Your task to perform on an android device: turn off priority inbox in the gmail app Image 0: 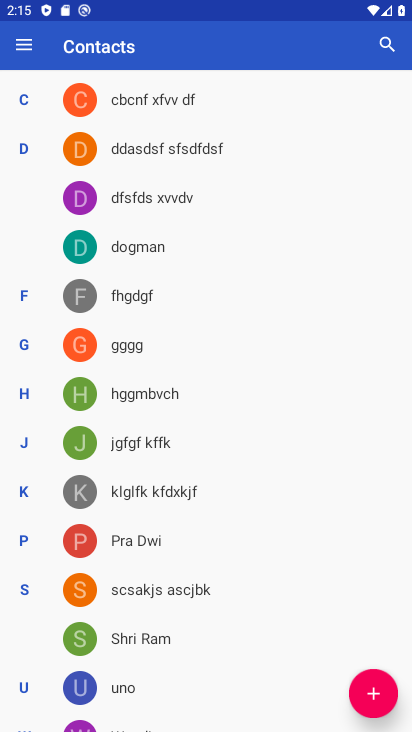
Step 0: press home button
Your task to perform on an android device: turn off priority inbox in the gmail app Image 1: 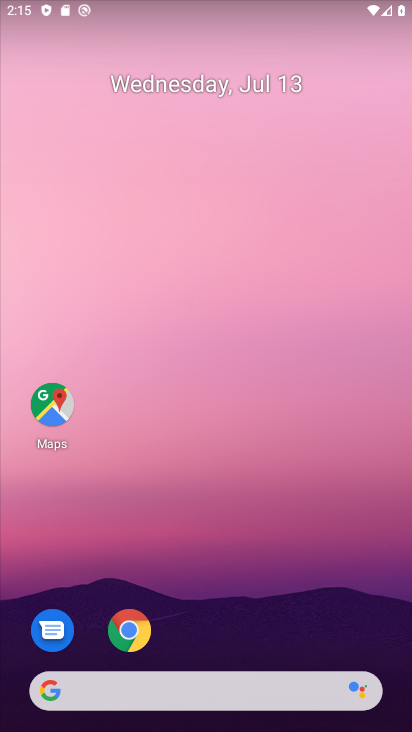
Step 1: drag from (261, 613) to (198, 68)
Your task to perform on an android device: turn off priority inbox in the gmail app Image 2: 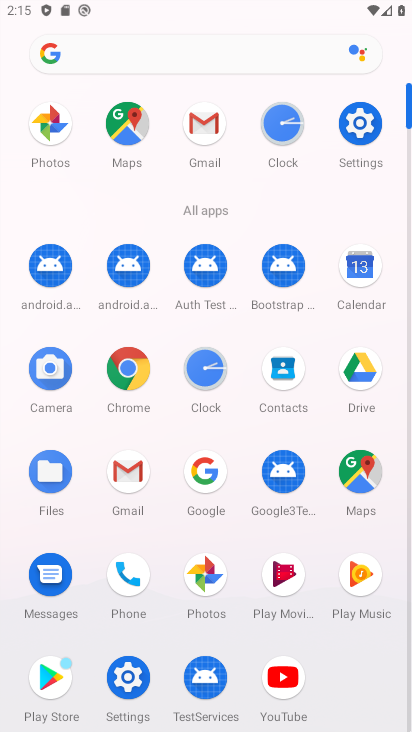
Step 2: click (201, 124)
Your task to perform on an android device: turn off priority inbox in the gmail app Image 3: 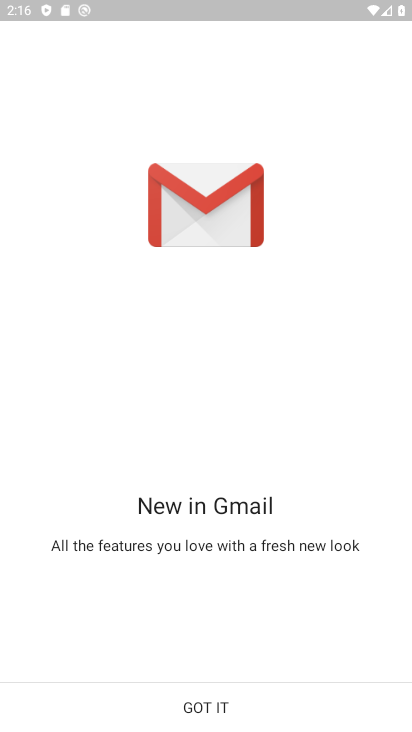
Step 3: click (217, 707)
Your task to perform on an android device: turn off priority inbox in the gmail app Image 4: 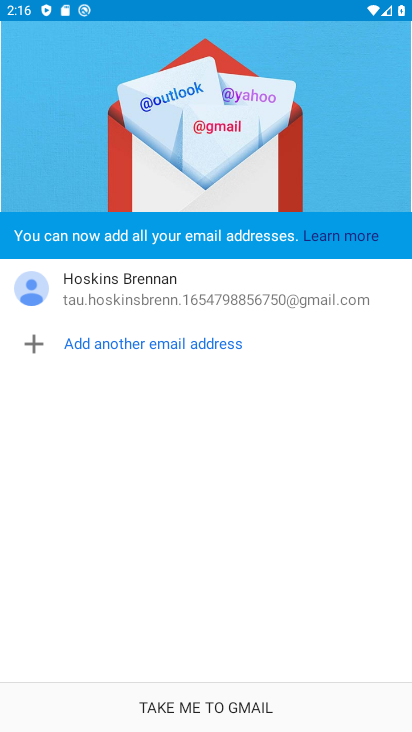
Step 4: click (229, 712)
Your task to perform on an android device: turn off priority inbox in the gmail app Image 5: 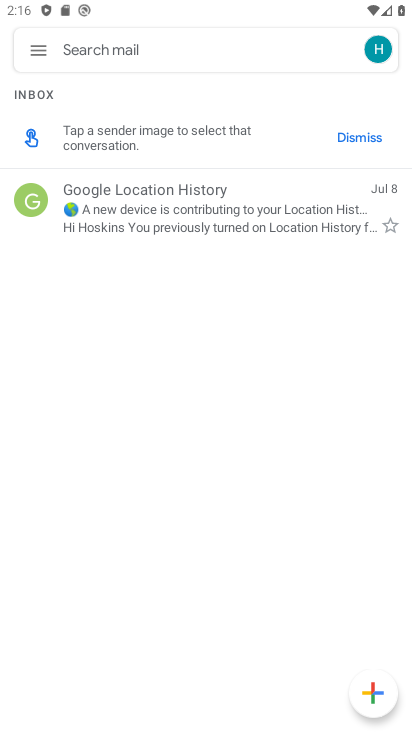
Step 5: click (40, 50)
Your task to perform on an android device: turn off priority inbox in the gmail app Image 6: 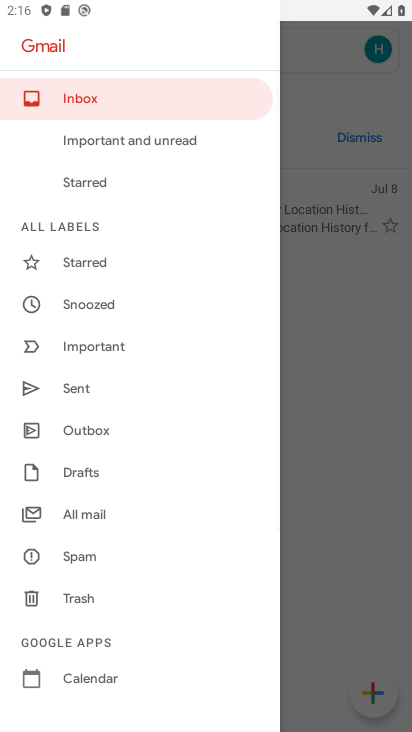
Step 6: drag from (139, 690) to (87, 274)
Your task to perform on an android device: turn off priority inbox in the gmail app Image 7: 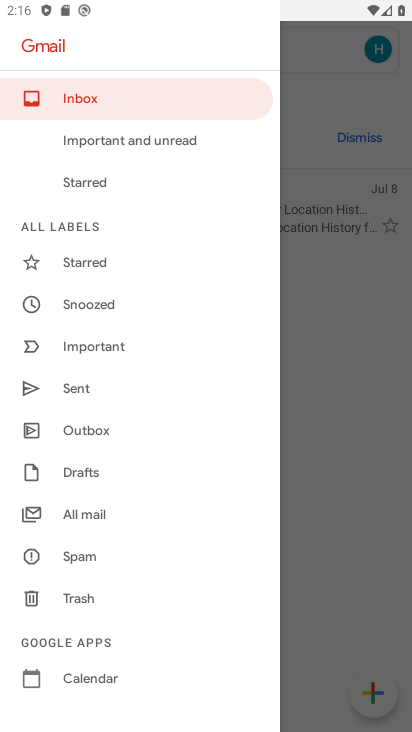
Step 7: drag from (111, 636) to (107, 274)
Your task to perform on an android device: turn off priority inbox in the gmail app Image 8: 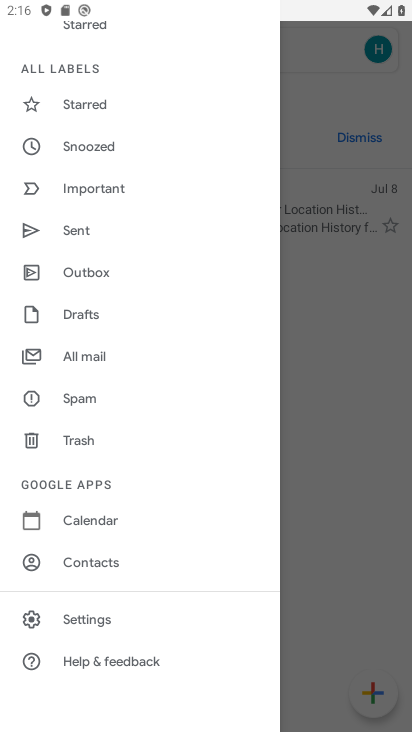
Step 8: click (94, 629)
Your task to perform on an android device: turn off priority inbox in the gmail app Image 9: 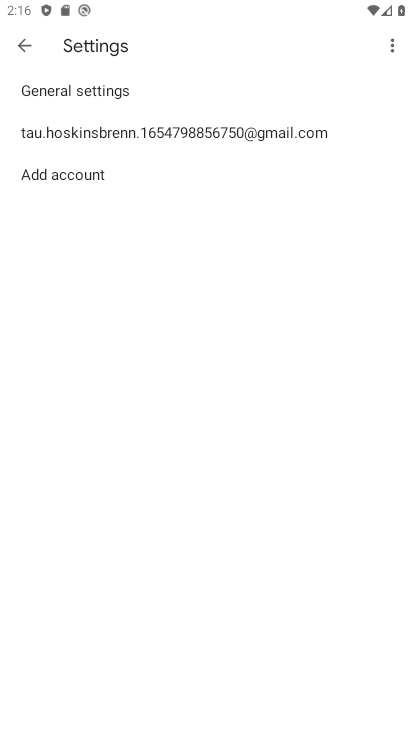
Step 9: click (293, 140)
Your task to perform on an android device: turn off priority inbox in the gmail app Image 10: 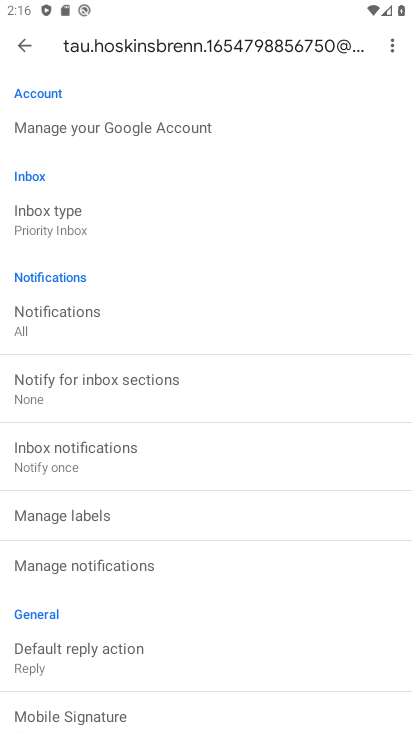
Step 10: click (182, 217)
Your task to perform on an android device: turn off priority inbox in the gmail app Image 11: 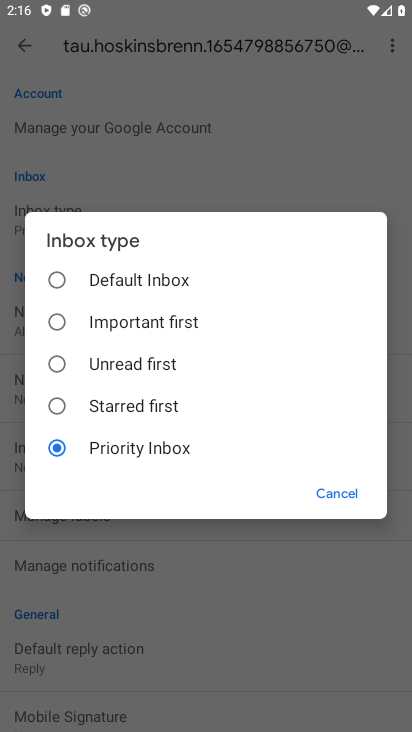
Step 11: click (152, 279)
Your task to perform on an android device: turn off priority inbox in the gmail app Image 12: 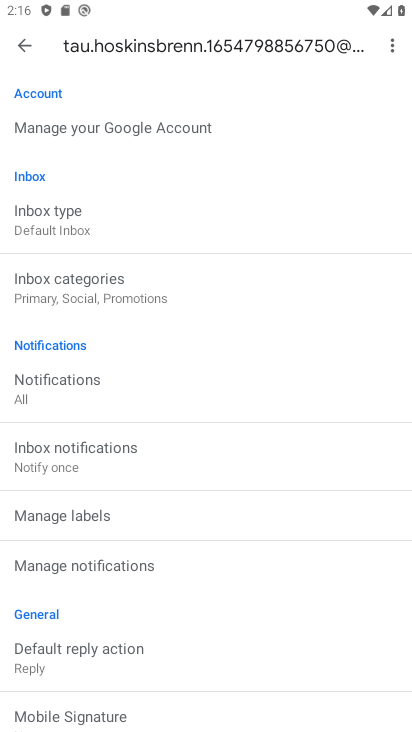
Step 12: task complete